Your task to perform on an android device: check android version Image 0: 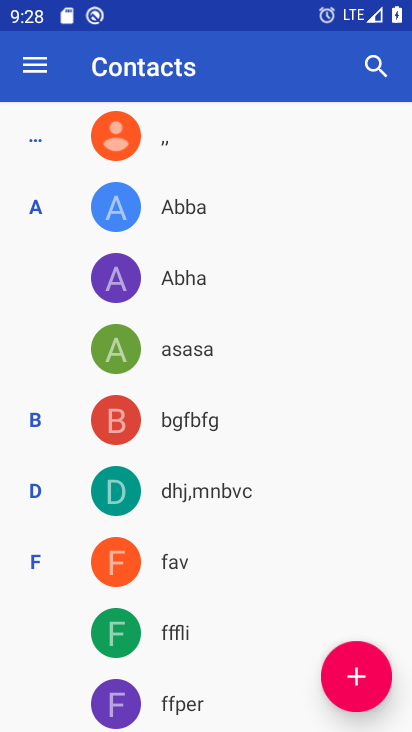
Step 0: press home button
Your task to perform on an android device: check android version Image 1: 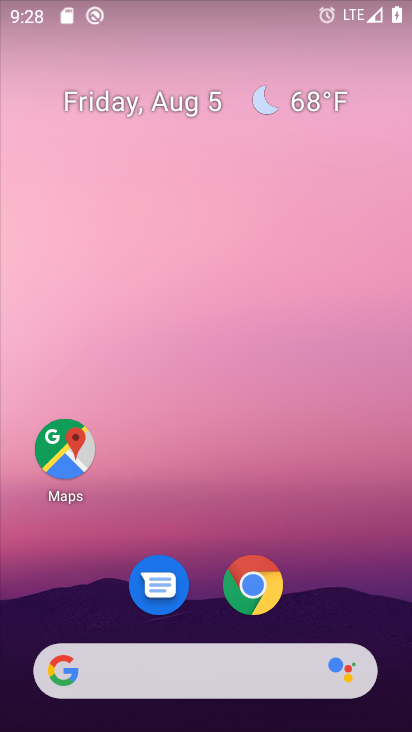
Step 1: drag from (336, 585) to (330, 16)
Your task to perform on an android device: check android version Image 2: 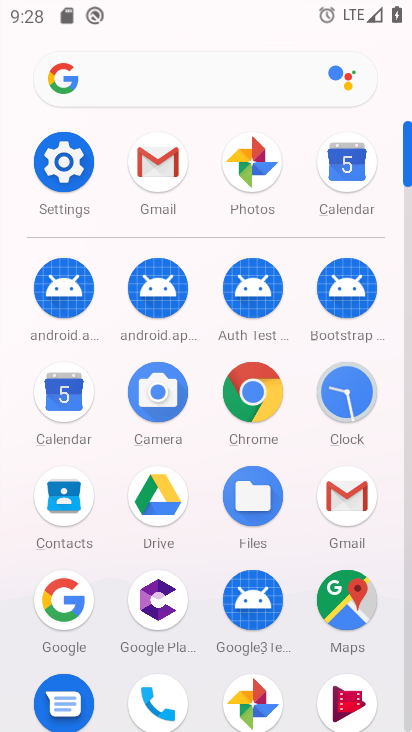
Step 2: click (73, 159)
Your task to perform on an android device: check android version Image 3: 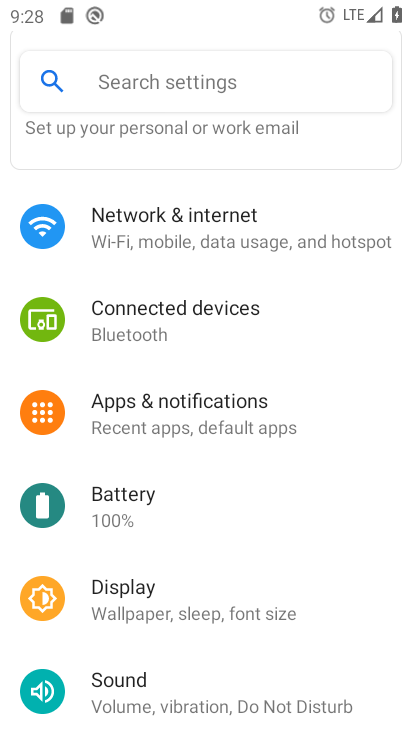
Step 3: drag from (197, 656) to (247, 32)
Your task to perform on an android device: check android version Image 4: 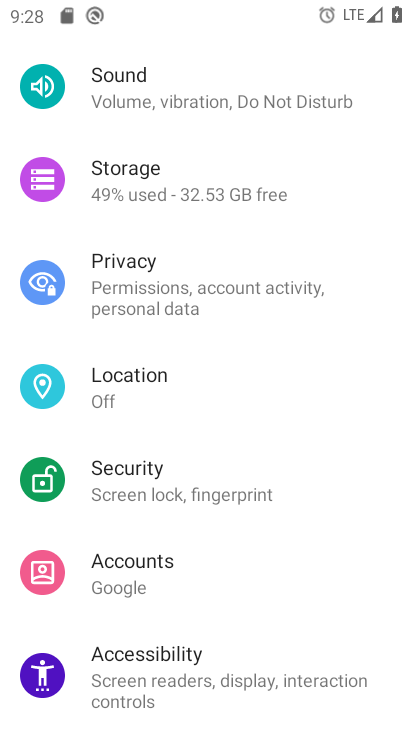
Step 4: drag from (235, 434) to (268, 87)
Your task to perform on an android device: check android version Image 5: 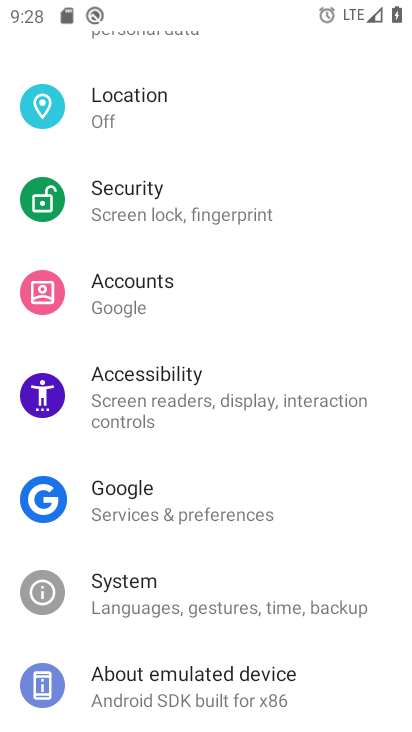
Step 5: click (208, 679)
Your task to perform on an android device: check android version Image 6: 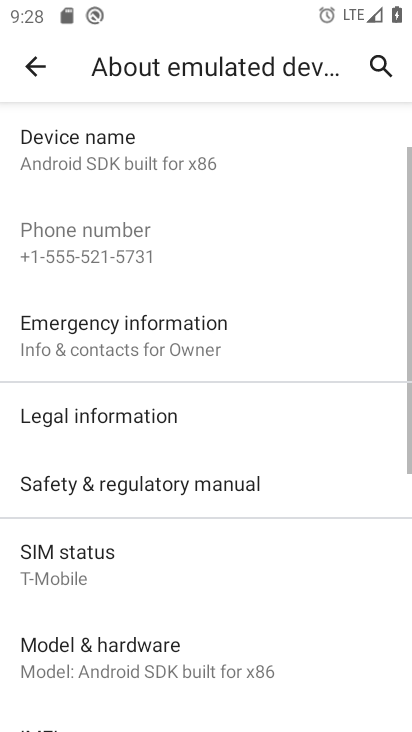
Step 6: drag from (216, 602) to (223, 53)
Your task to perform on an android device: check android version Image 7: 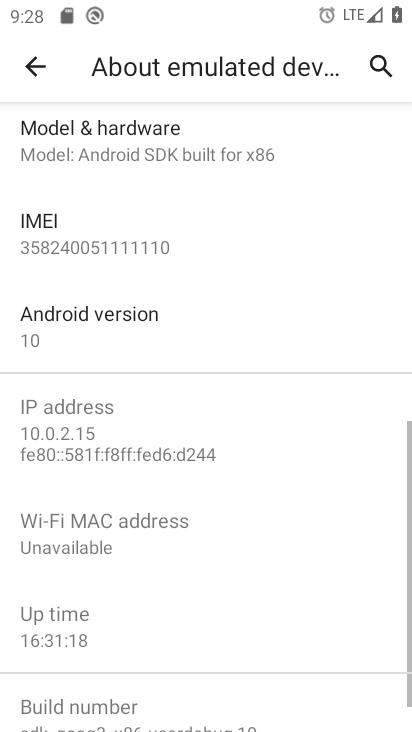
Step 7: click (142, 331)
Your task to perform on an android device: check android version Image 8: 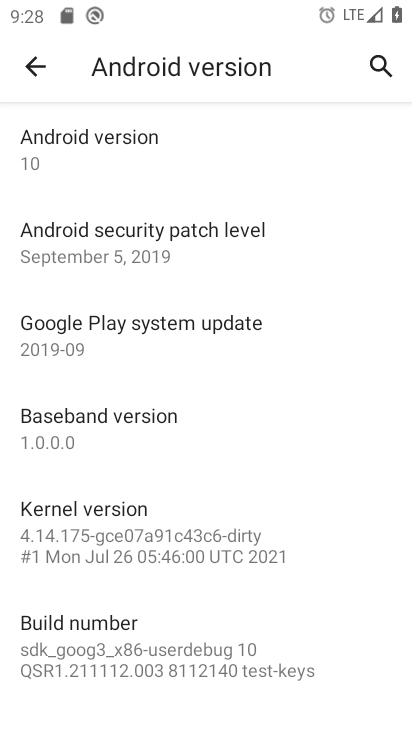
Step 8: task complete